Your task to perform on an android device: Turn off the flashlight Image 0: 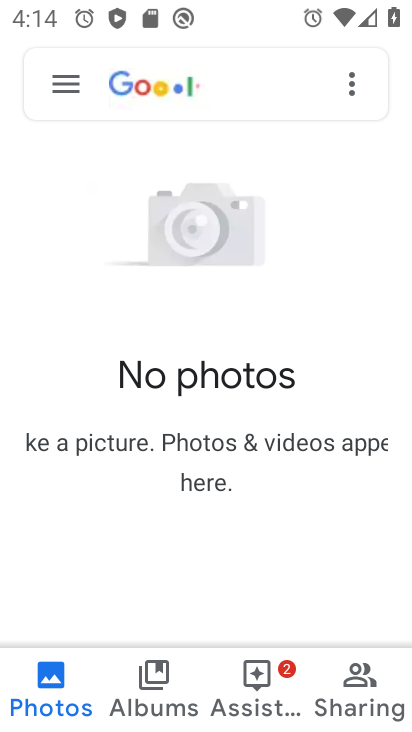
Step 0: press home button
Your task to perform on an android device: Turn off the flashlight Image 1: 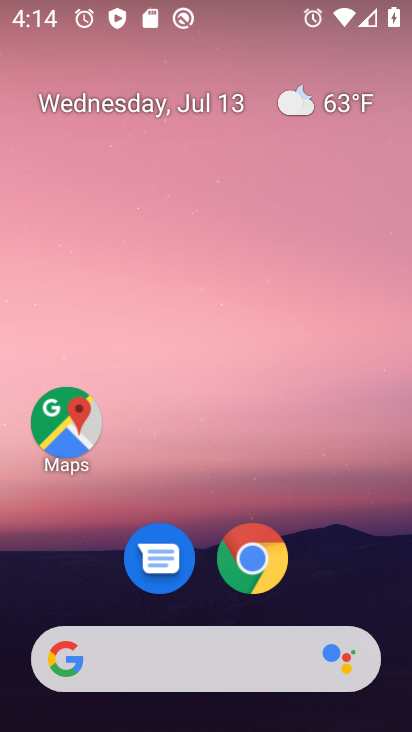
Step 1: drag from (236, 4) to (322, 516)
Your task to perform on an android device: Turn off the flashlight Image 2: 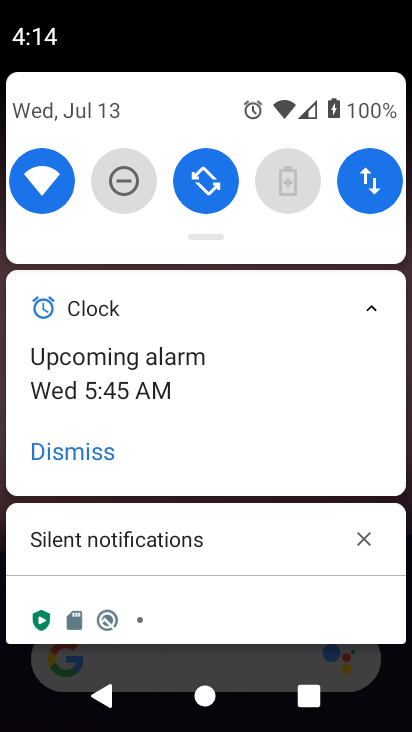
Step 2: drag from (277, 209) to (361, 585)
Your task to perform on an android device: Turn off the flashlight Image 3: 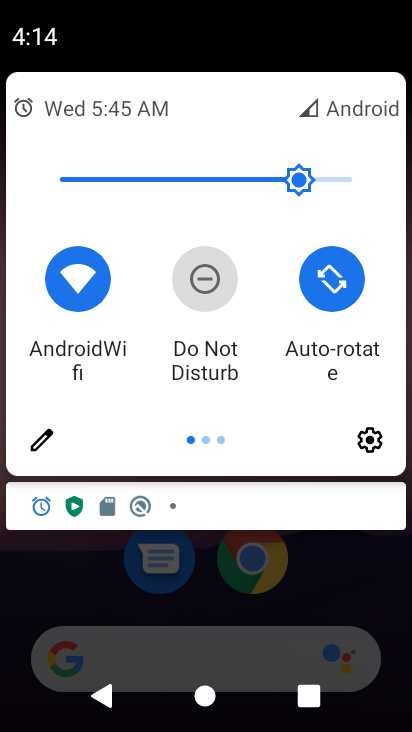
Step 3: drag from (364, 307) to (34, 350)
Your task to perform on an android device: Turn off the flashlight Image 4: 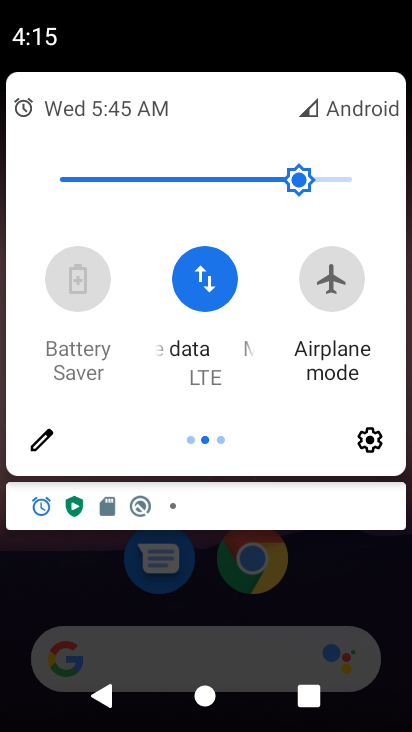
Step 4: drag from (378, 355) to (15, 378)
Your task to perform on an android device: Turn off the flashlight Image 5: 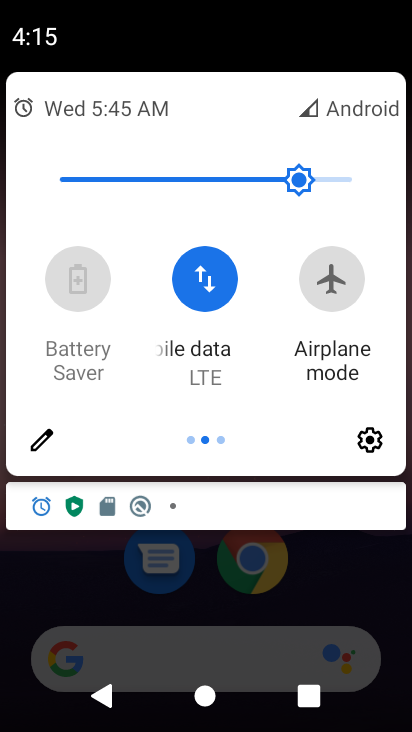
Step 5: drag from (375, 329) to (2, 407)
Your task to perform on an android device: Turn off the flashlight Image 6: 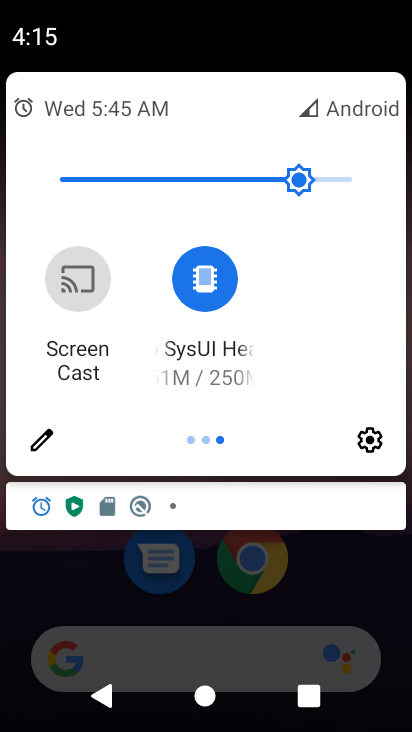
Step 6: click (45, 436)
Your task to perform on an android device: Turn off the flashlight Image 7: 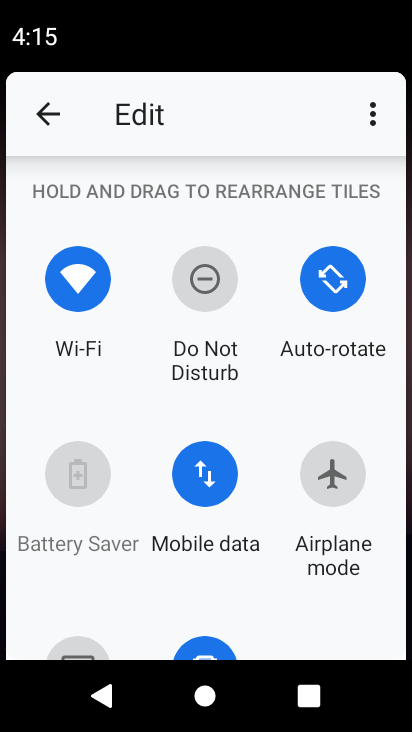
Step 7: task complete